Your task to perform on an android device: Open notification settings Image 0: 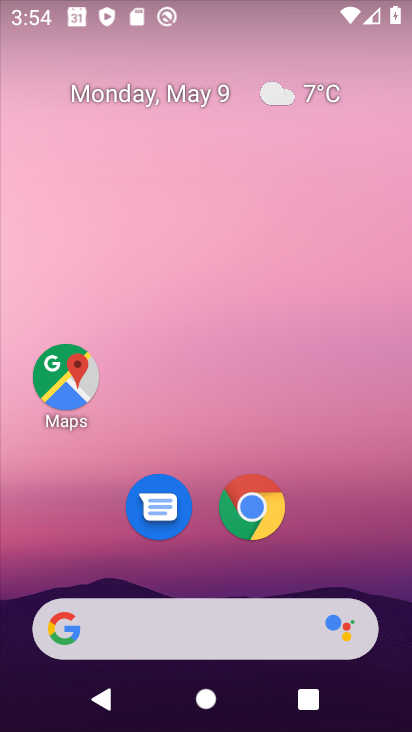
Step 0: drag from (292, 649) to (210, 160)
Your task to perform on an android device: Open notification settings Image 1: 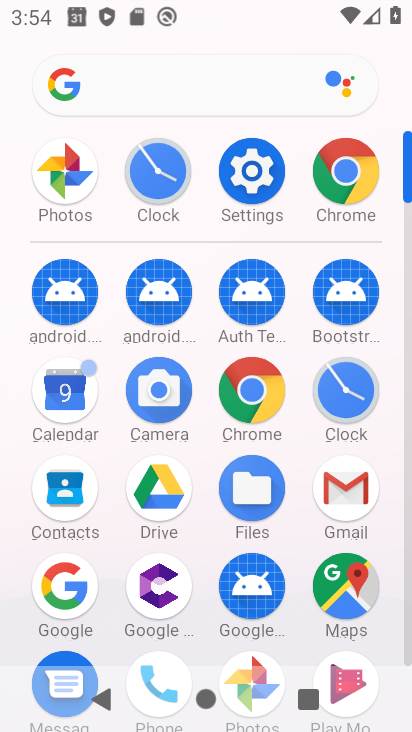
Step 1: click (243, 225)
Your task to perform on an android device: Open notification settings Image 2: 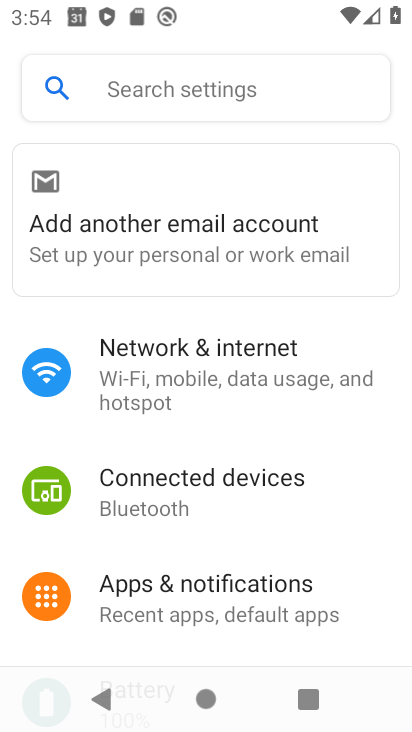
Step 2: click (176, 93)
Your task to perform on an android device: Open notification settings Image 3: 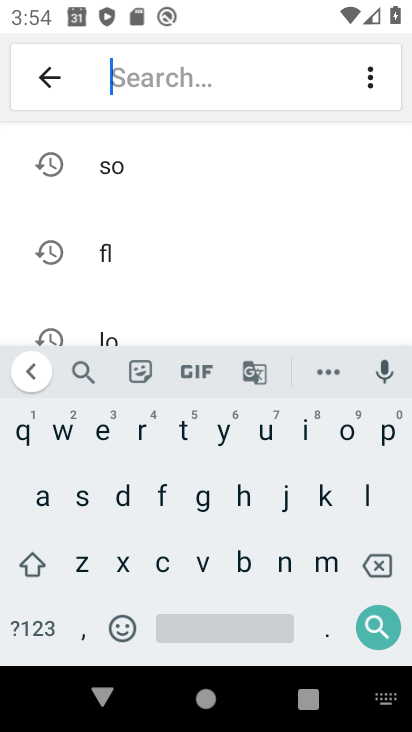
Step 3: click (293, 562)
Your task to perform on an android device: Open notification settings Image 4: 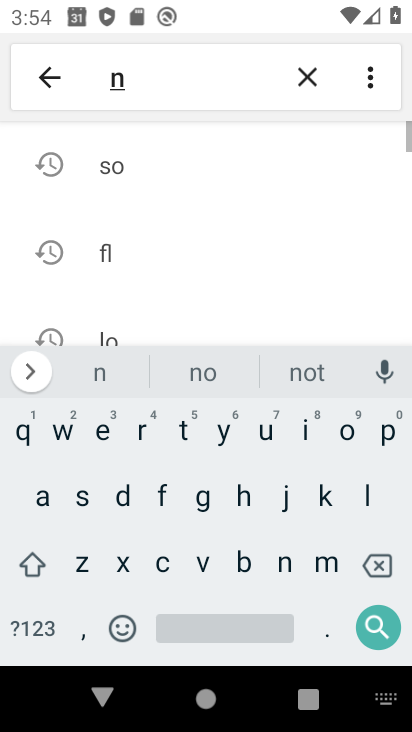
Step 4: click (347, 439)
Your task to perform on an android device: Open notification settings Image 5: 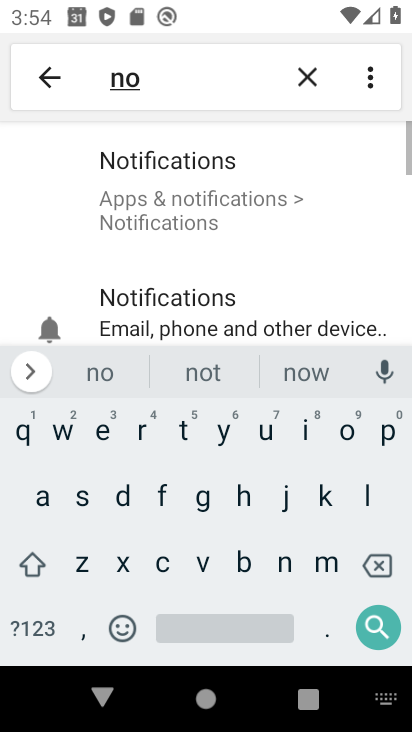
Step 5: click (172, 197)
Your task to perform on an android device: Open notification settings Image 6: 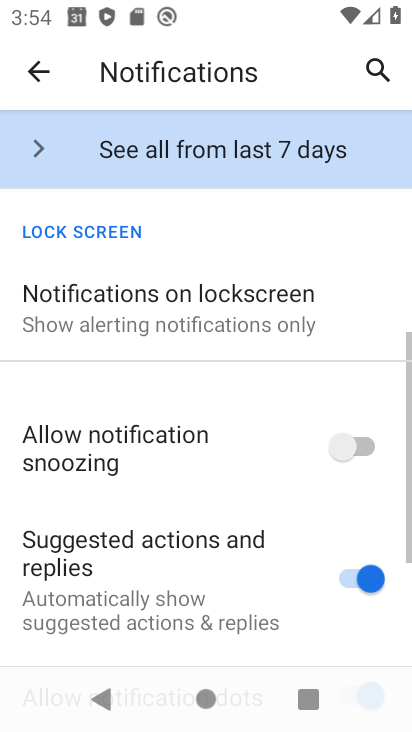
Step 6: click (156, 295)
Your task to perform on an android device: Open notification settings Image 7: 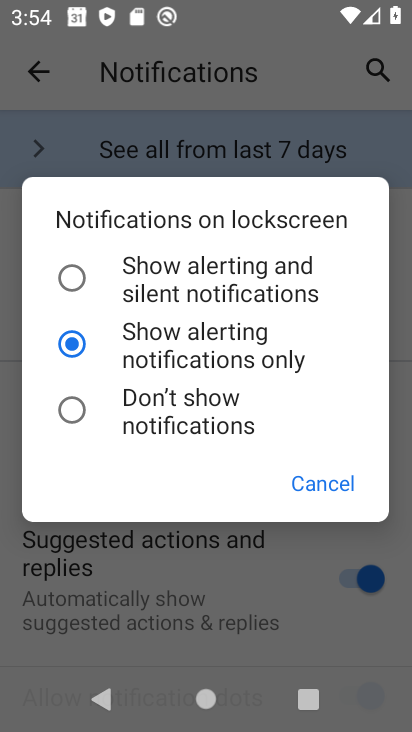
Step 7: task complete